Your task to perform on an android device: clear all cookies in the chrome app Image 0: 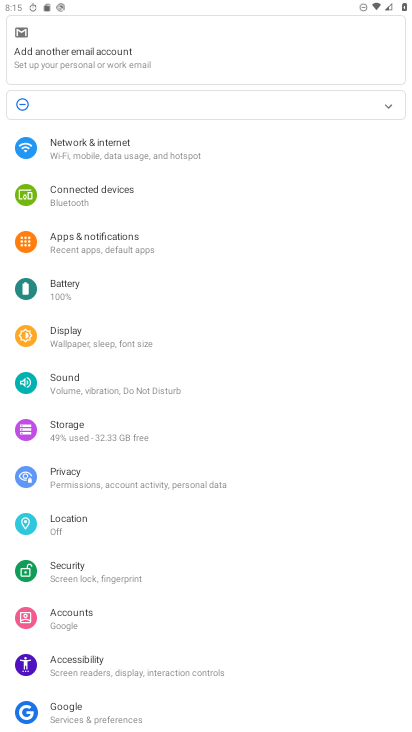
Step 0: press home button
Your task to perform on an android device: clear all cookies in the chrome app Image 1: 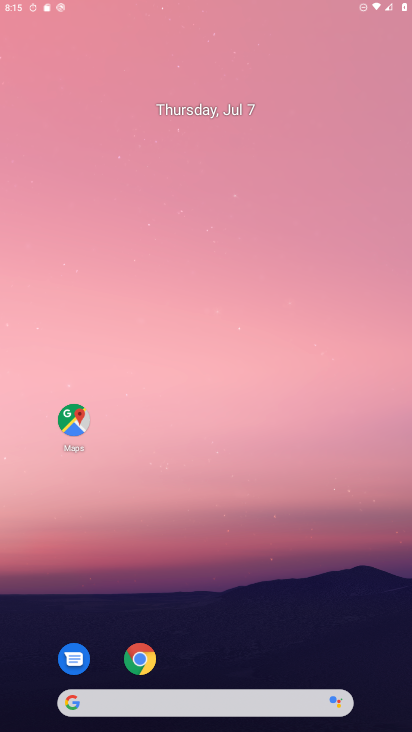
Step 1: drag from (374, 711) to (245, 129)
Your task to perform on an android device: clear all cookies in the chrome app Image 2: 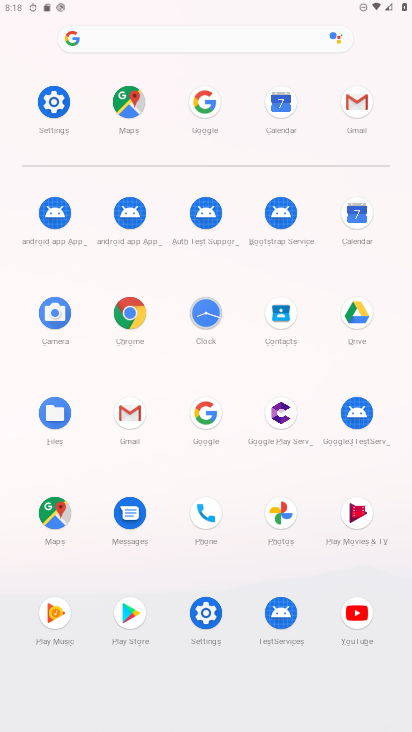
Step 2: click (131, 306)
Your task to perform on an android device: clear all cookies in the chrome app Image 3: 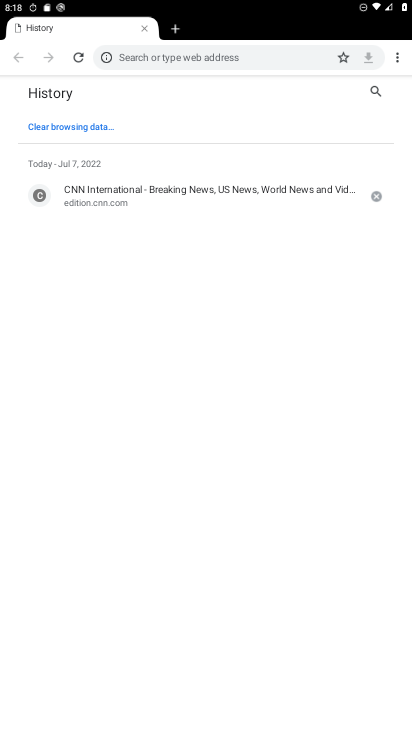
Step 3: click (394, 54)
Your task to perform on an android device: clear all cookies in the chrome app Image 4: 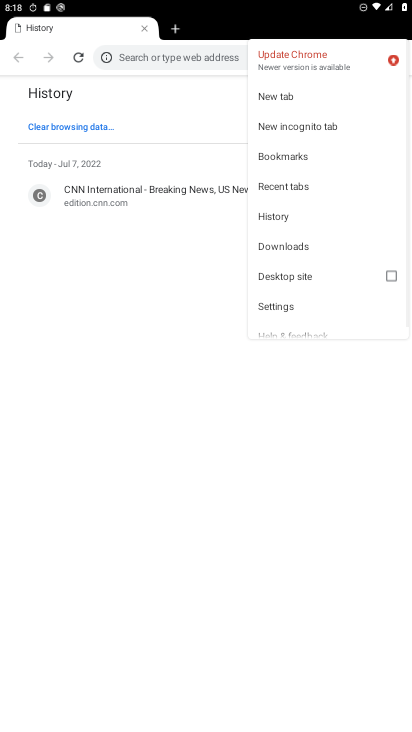
Step 4: click (282, 211)
Your task to perform on an android device: clear all cookies in the chrome app Image 5: 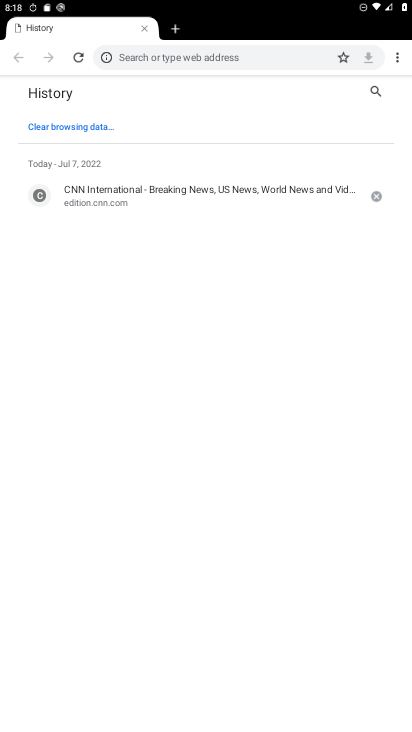
Step 5: click (78, 124)
Your task to perform on an android device: clear all cookies in the chrome app Image 6: 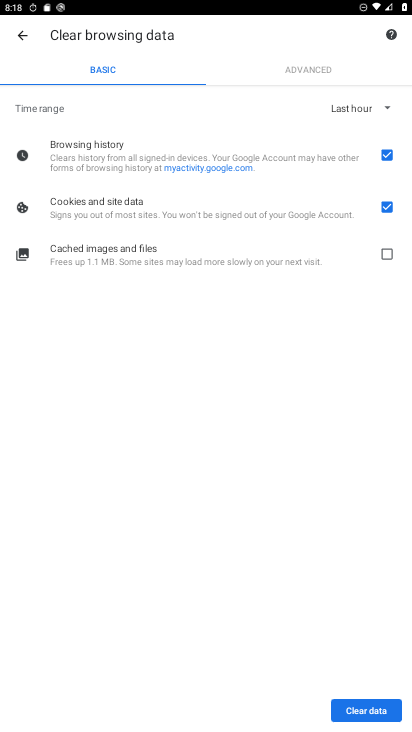
Step 6: click (325, 157)
Your task to perform on an android device: clear all cookies in the chrome app Image 7: 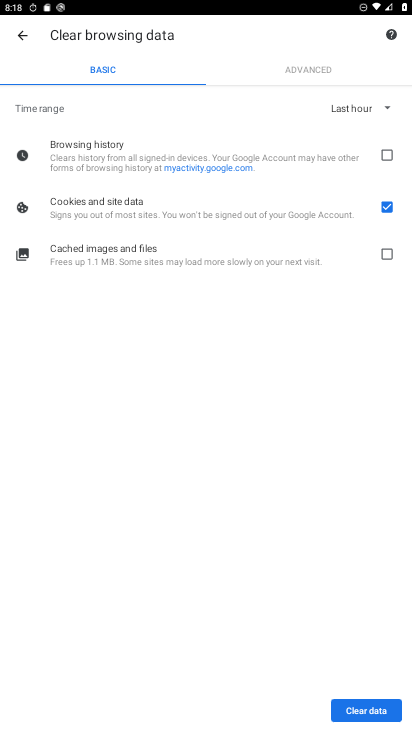
Step 7: click (350, 706)
Your task to perform on an android device: clear all cookies in the chrome app Image 8: 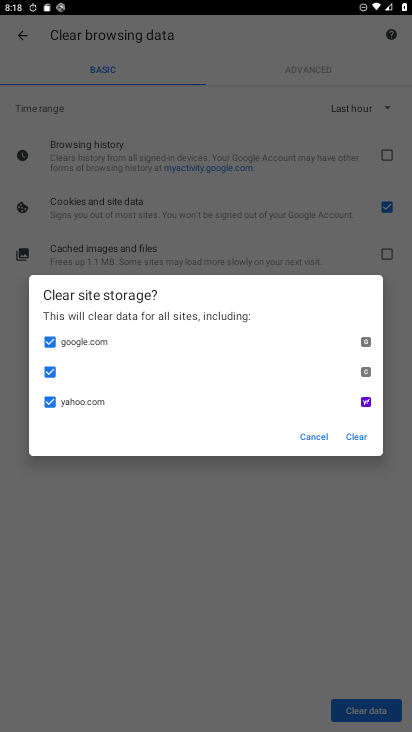
Step 8: click (359, 433)
Your task to perform on an android device: clear all cookies in the chrome app Image 9: 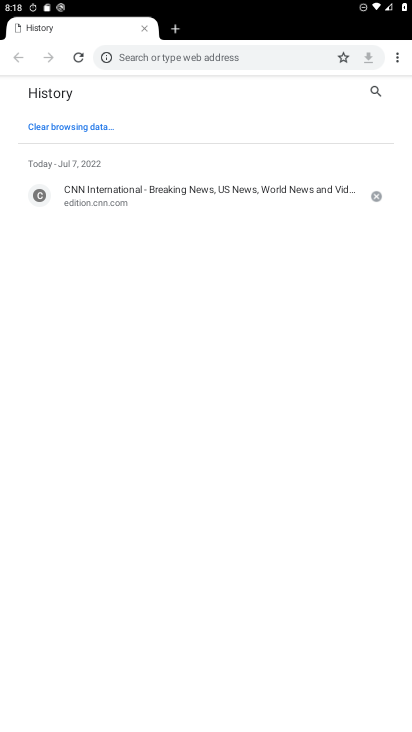
Step 9: task complete